Your task to perform on an android device: change the clock style Image 0: 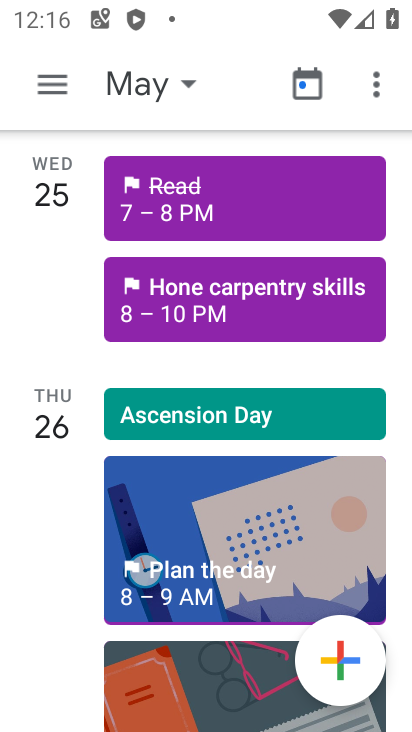
Step 0: press home button
Your task to perform on an android device: change the clock style Image 1: 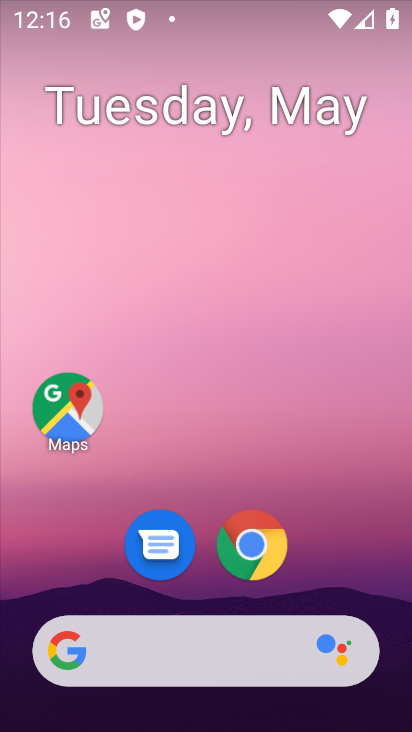
Step 1: drag from (220, 587) to (222, 113)
Your task to perform on an android device: change the clock style Image 2: 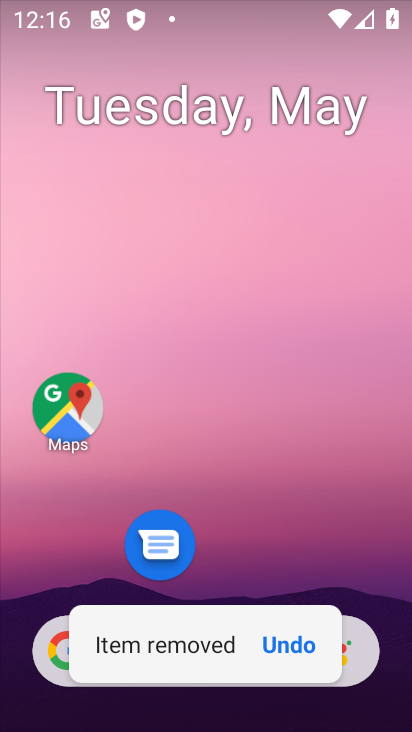
Step 2: click (302, 647)
Your task to perform on an android device: change the clock style Image 3: 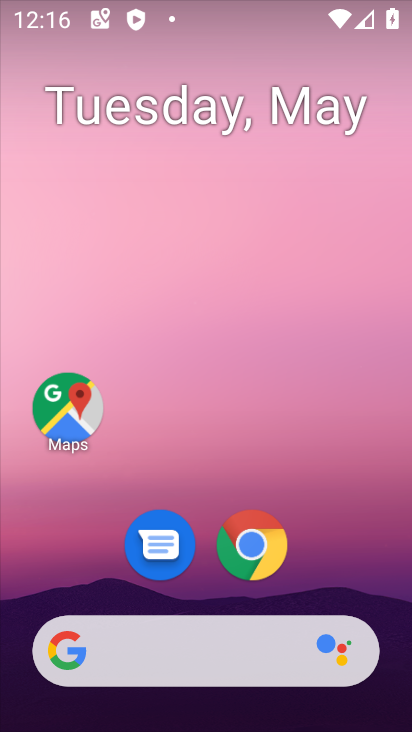
Step 3: drag from (213, 598) to (189, 277)
Your task to perform on an android device: change the clock style Image 4: 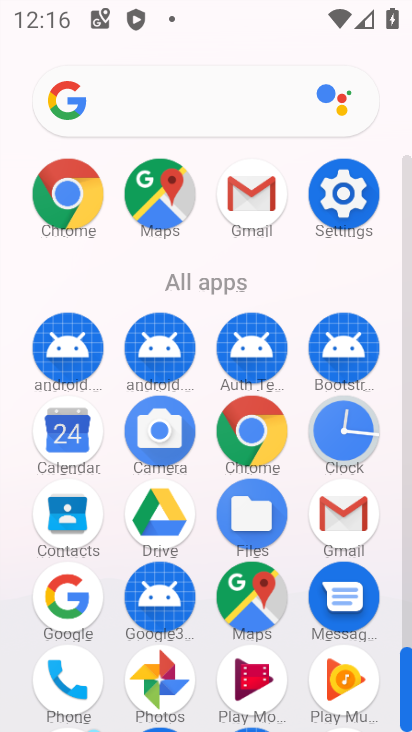
Step 4: click (344, 454)
Your task to perform on an android device: change the clock style Image 5: 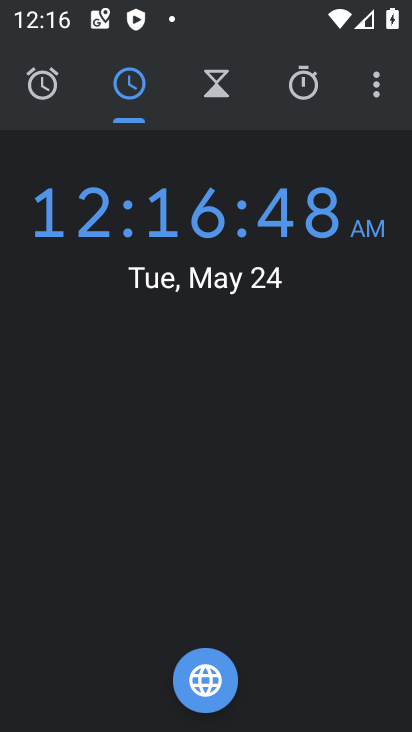
Step 5: click (365, 79)
Your task to perform on an android device: change the clock style Image 6: 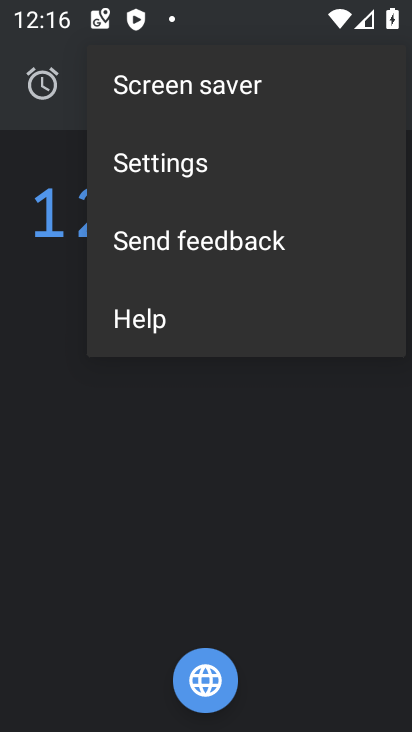
Step 6: click (166, 183)
Your task to perform on an android device: change the clock style Image 7: 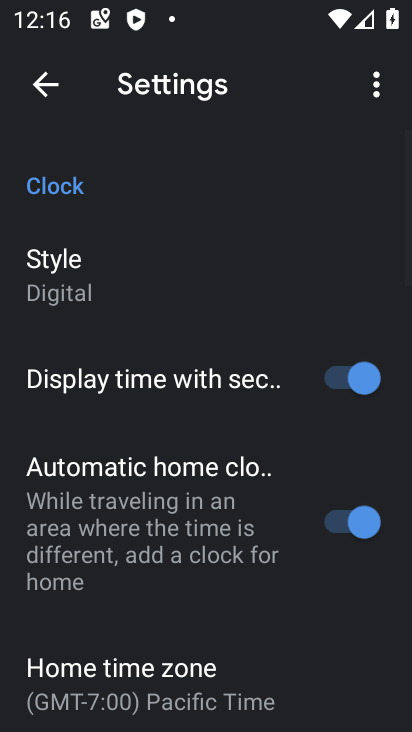
Step 7: click (53, 271)
Your task to perform on an android device: change the clock style Image 8: 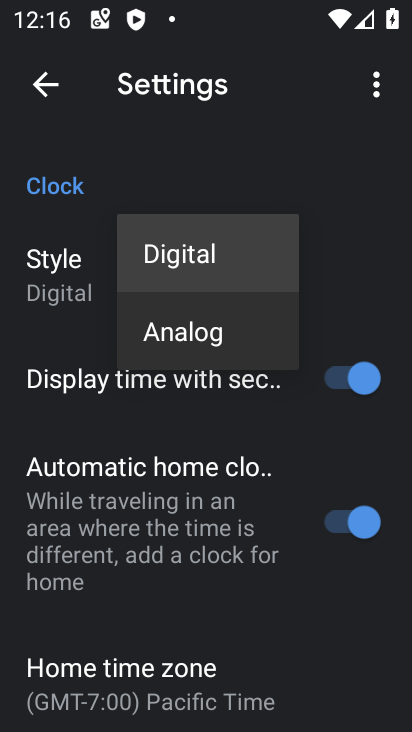
Step 8: click (142, 325)
Your task to perform on an android device: change the clock style Image 9: 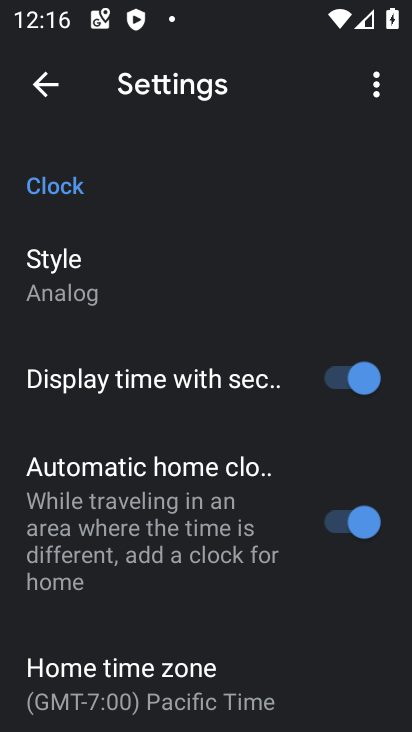
Step 9: task complete